Your task to perform on an android device: turn on sleep mode Image 0: 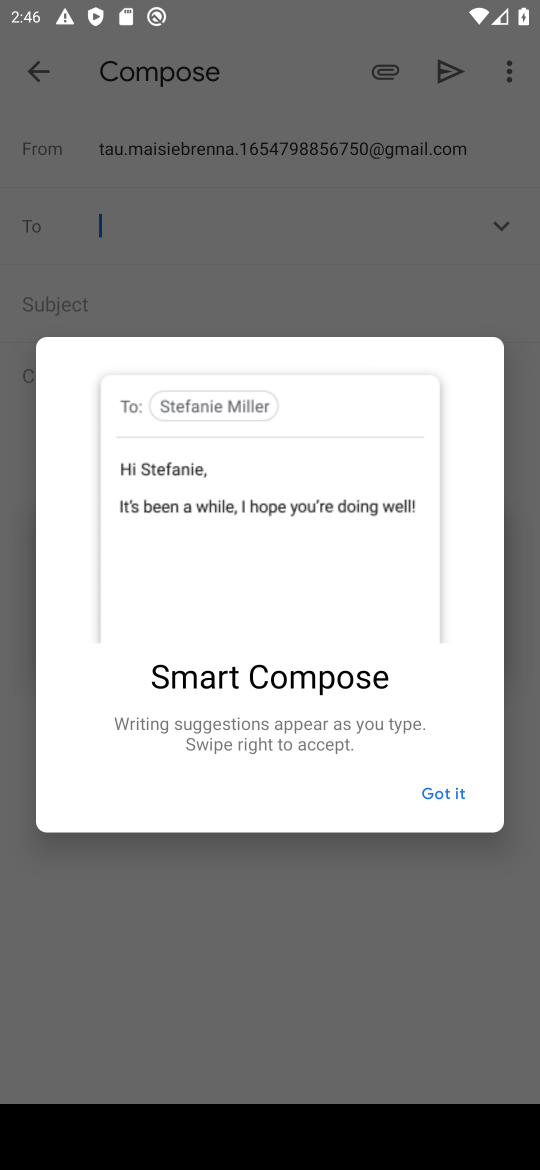
Step 0: press home button
Your task to perform on an android device: turn on sleep mode Image 1: 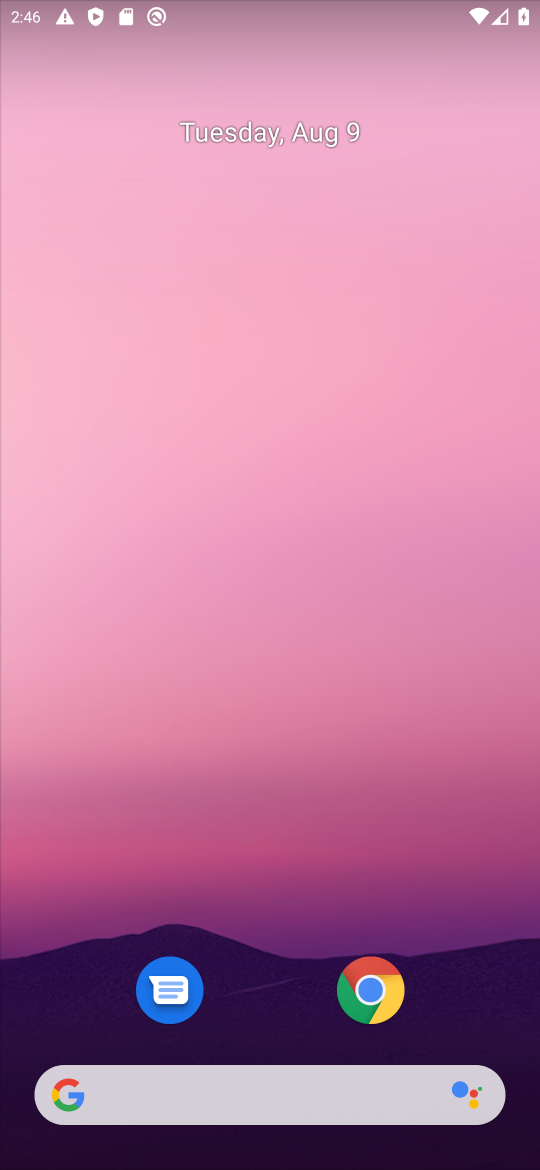
Step 1: drag from (242, 1109) to (171, 160)
Your task to perform on an android device: turn on sleep mode Image 2: 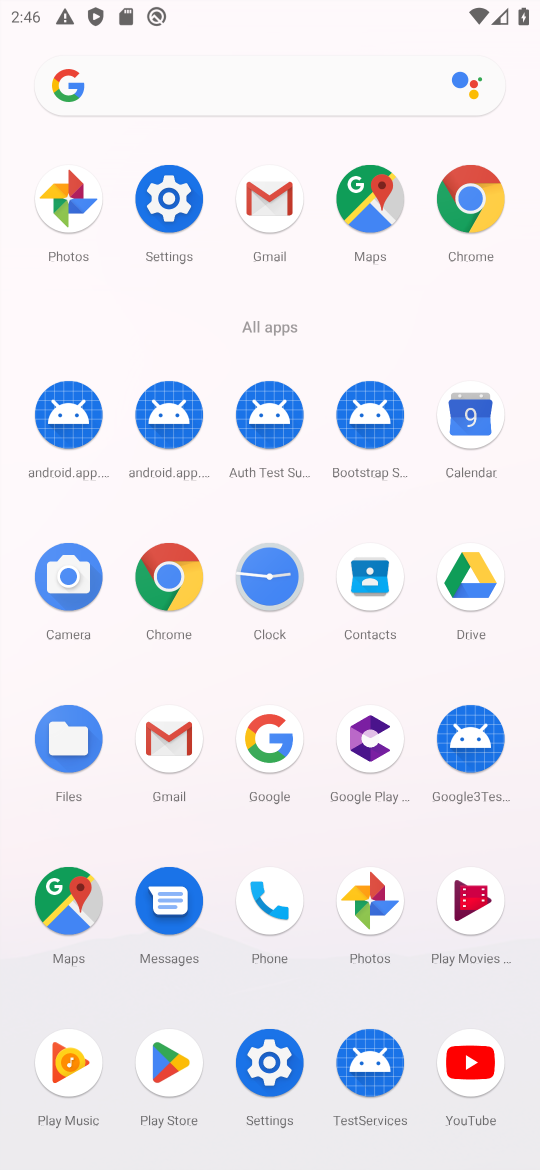
Step 2: click (173, 192)
Your task to perform on an android device: turn on sleep mode Image 3: 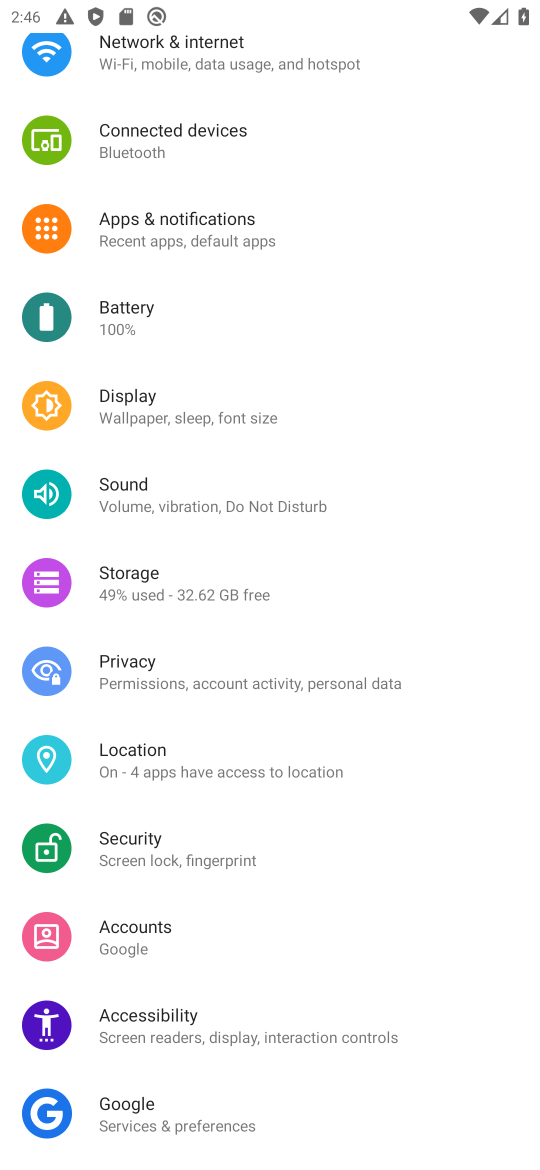
Step 3: click (173, 192)
Your task to perform on an android device: turn on sleep mode Image 4: 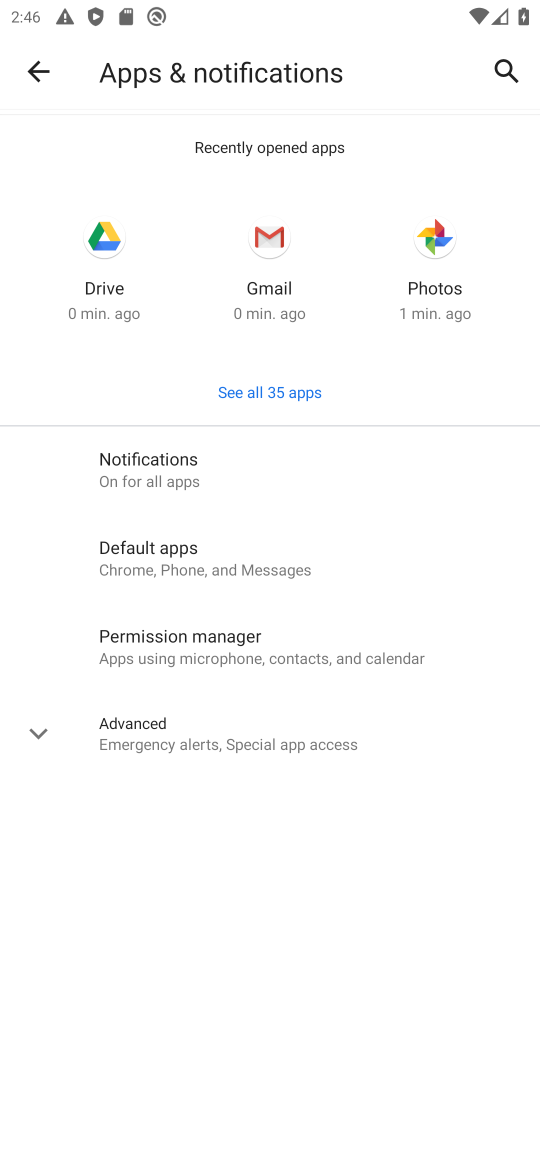
Step 4: press back button
Your task to perform on an android device: turn on sleep mode Image 5: 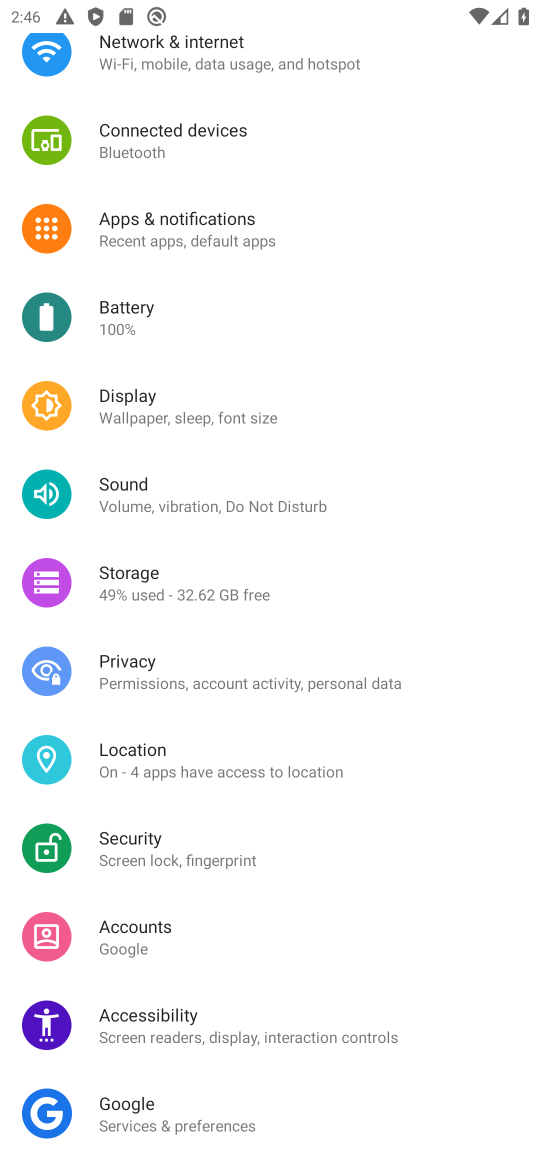
Step 5: click (242, 423)
Your task to perform on an android device: turn on sleep mode Image 6: 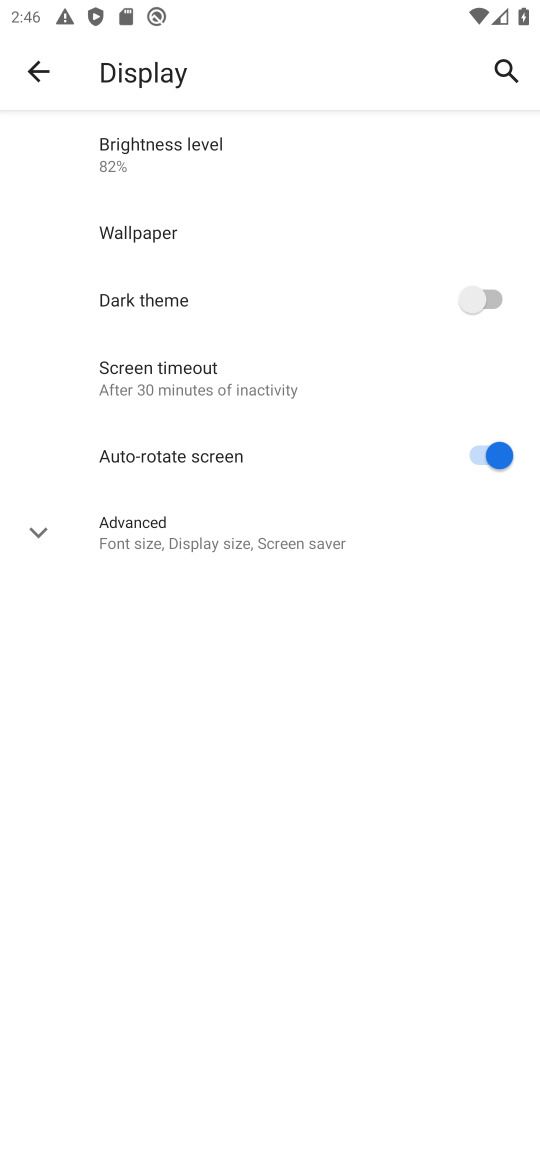
Step 6: task complete